Your task to perform on an android device: Check the weather Image 0: 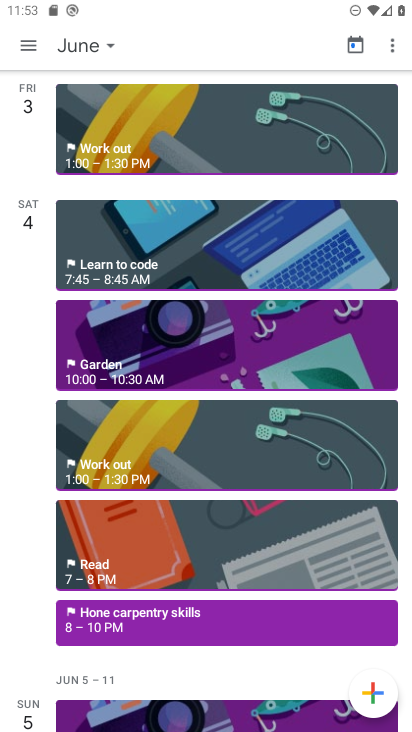
Step 0: press home button
Your task to perform on an android device: Check the weather Image 1: 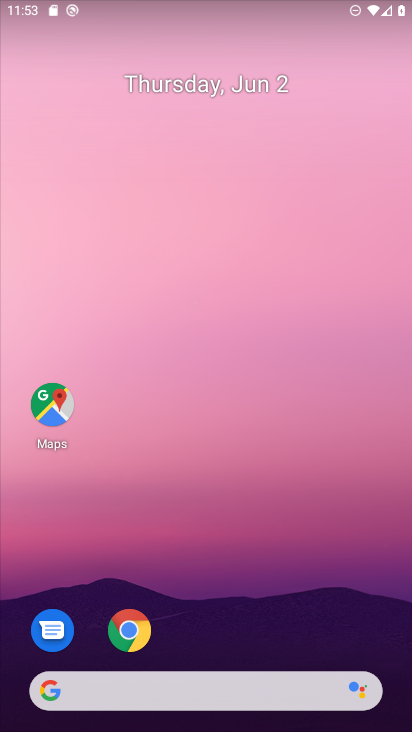
Step 1: click (213, 698)
Your task to perform on an android device: Check the weather Image 2: 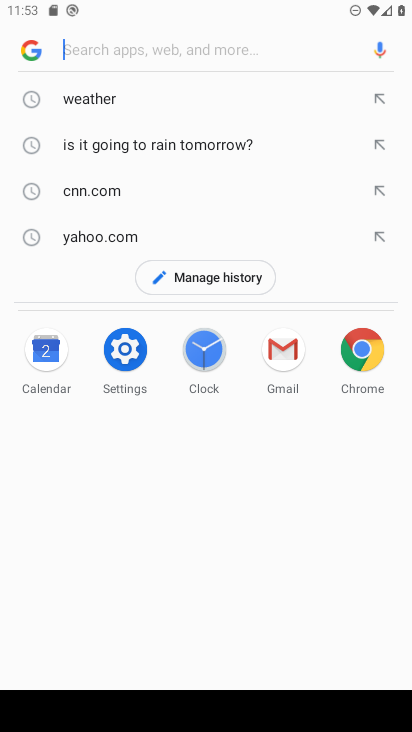
Step 2: click (135, 90)
Your task to perform on an android device: Check the weather Image 3: 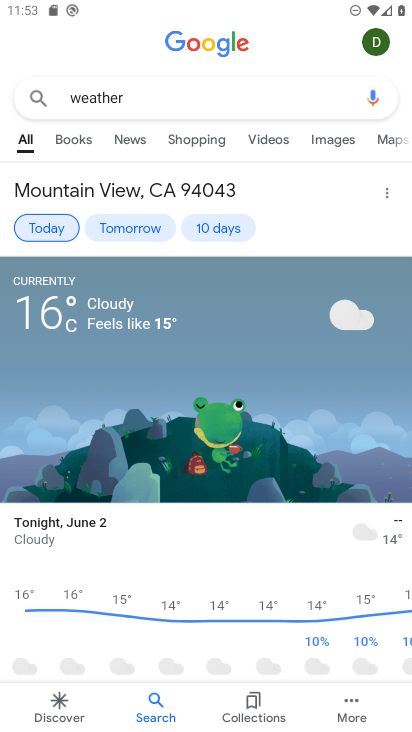
Step 3: task complete